Your task to perform on an android device: Open Wikipedia Image 0: 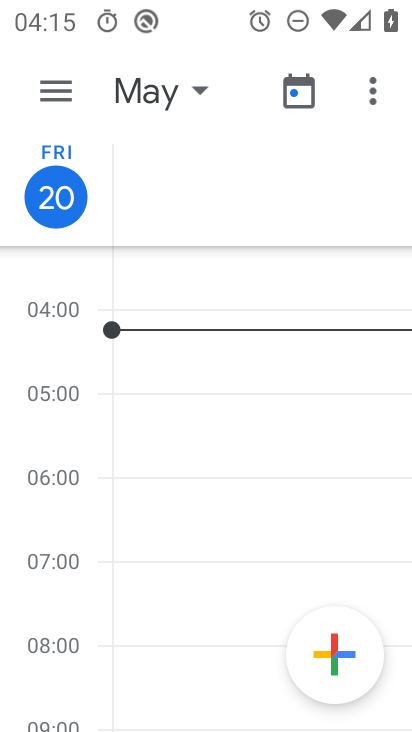
Step 0: press home button
Your task to perform on an android device: Open Wikipedia Image 1: 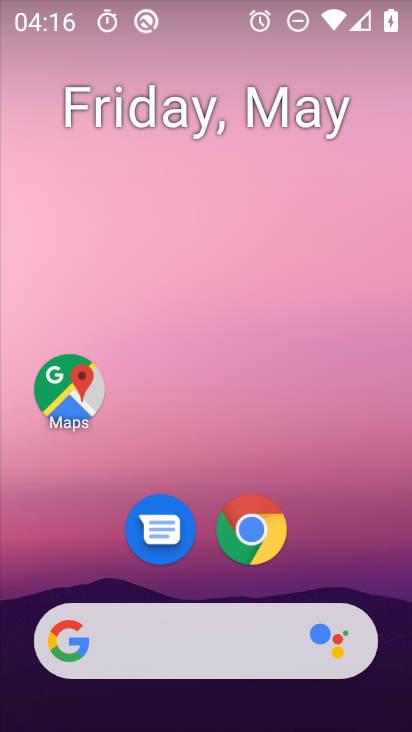
Step 1: click (257, 534)
Your task to perform on an android device: Open Wikipedia Image 2: 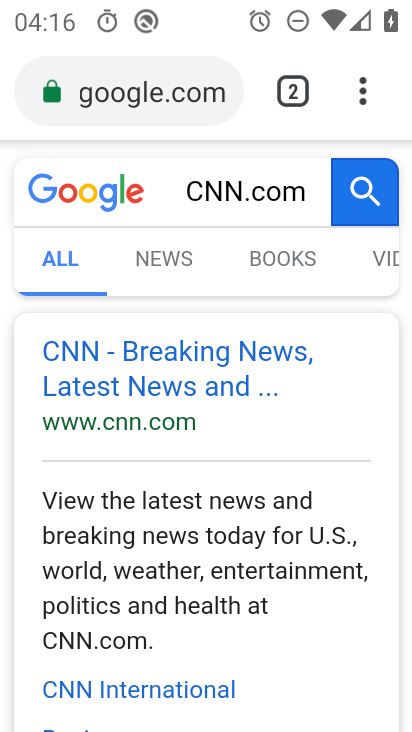
Step 2: click (222, 95)
Your task to perform on an android device: Open Wikipedia Image 3: 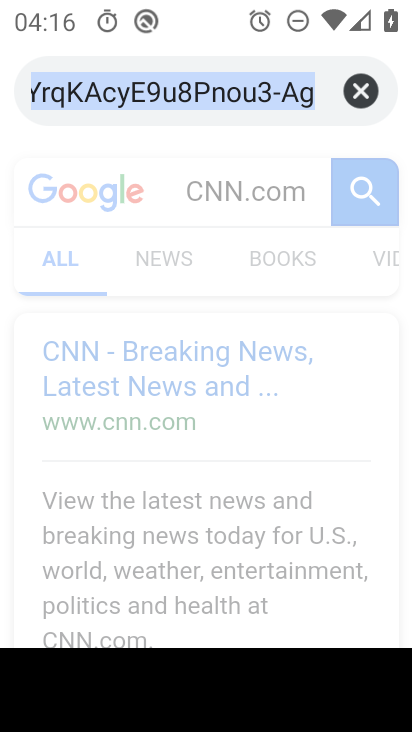
Step 3: click (363, 81)
Your task to perform on an android device: Open Wikipedia Image 4: 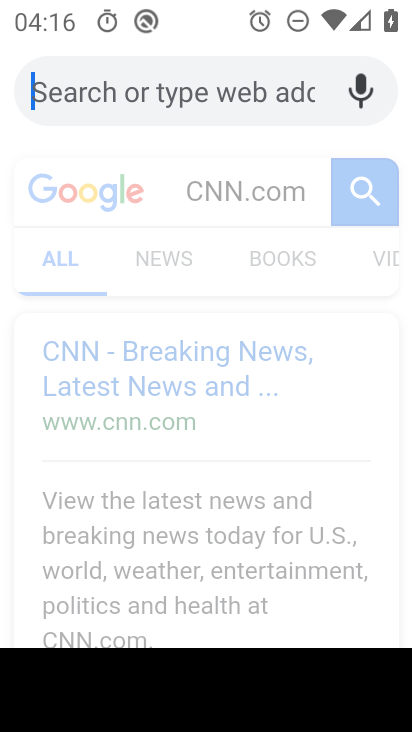
Step 4: type "Wikipedia"
Your task to perform on an android device: Open Wikipedia Image 5: 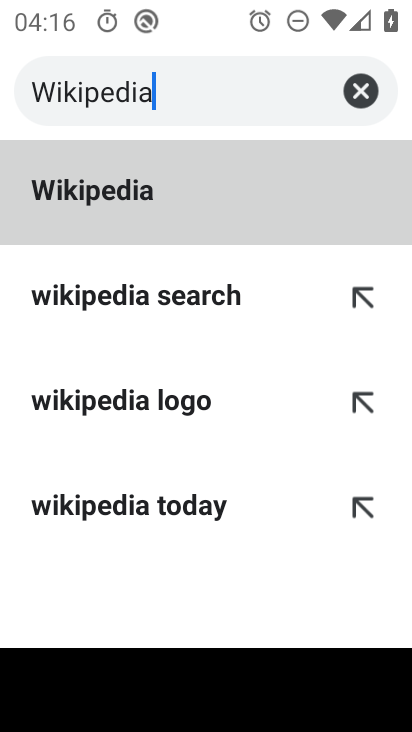
Step 5: click (137, 185)
Your task to perform on an android device: Open Wikipedia Image 6: 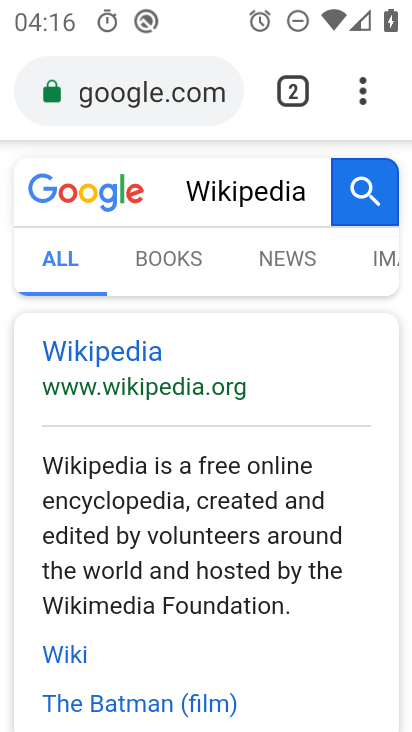
Step 6: task complete